Your task to perform on an android device: toggle translation in the chrome app Image 0: 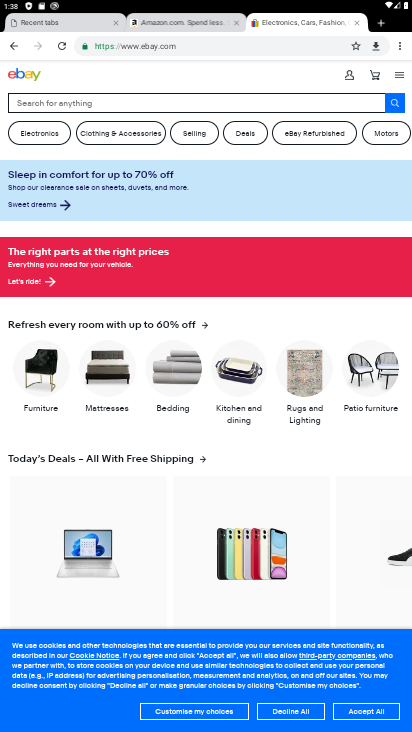
Step 0: press home button
Your task to perform on an android device: toggle translation in the chrome app Image 1: 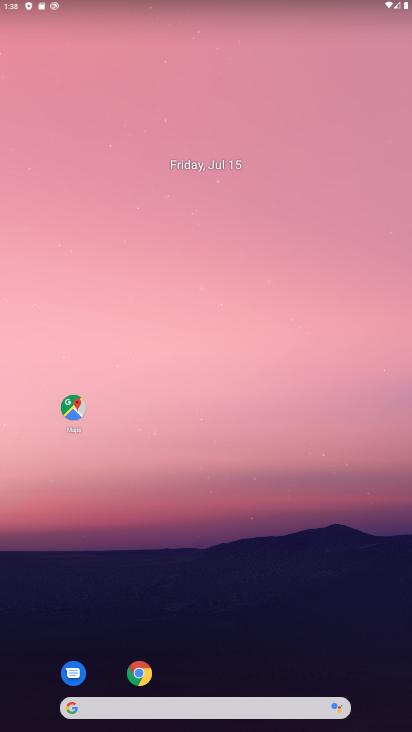
Step 1: drag from (255, 590) to (269, 1)
Your task to perform on an android device: toggle translation in the chrome app Image 2: 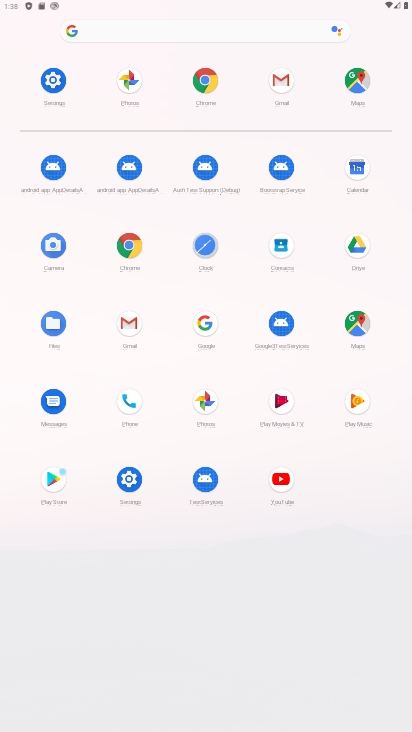
Step 2: click (206, 83)
Your task to perform on an android device: toggle translation in the chrome app Image 3: 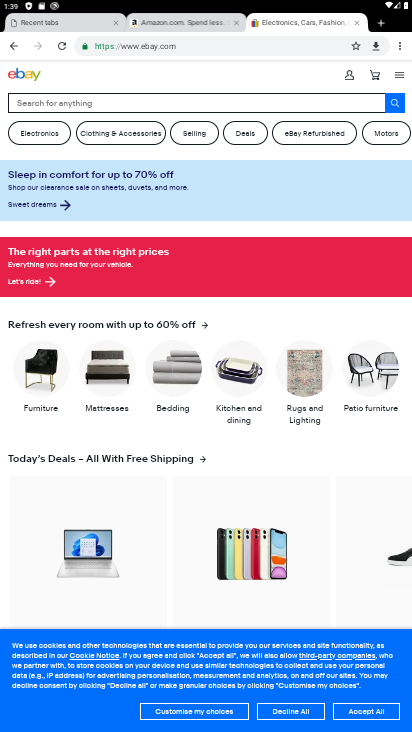
Step 3: task complete